Your task to perform on an android device: find photos in the google photos app Image 0: 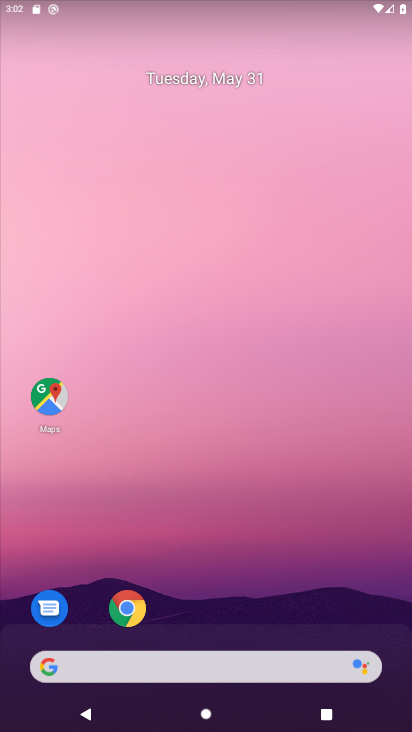
Step 0: drag from (264, 620) to (235, 173)
Your task to perform on an android device: find photos in the google photos app Image 1: 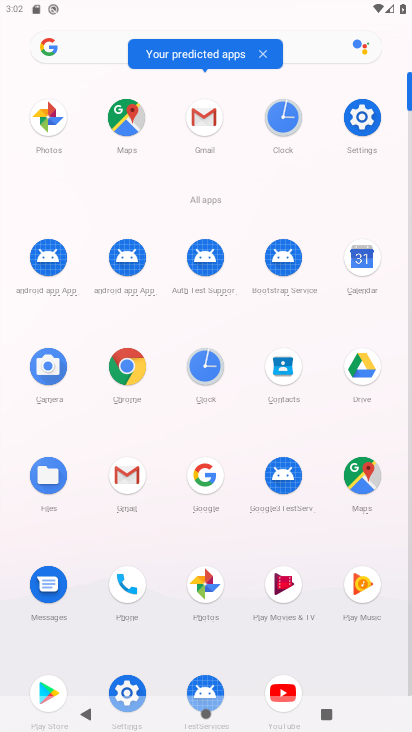
Step 1: click (204, 579)
Your task to perform on an android device: find photos in the google photos app Image 2: 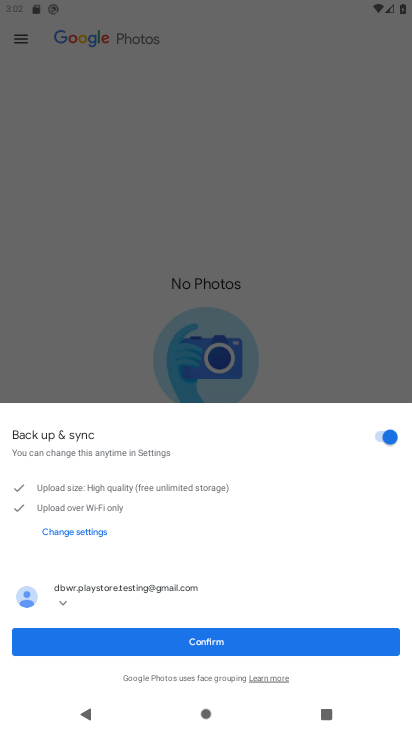
Step 2: click (235, 651)
Your task to perform on an android device: find photos in the google photos app Image 3: 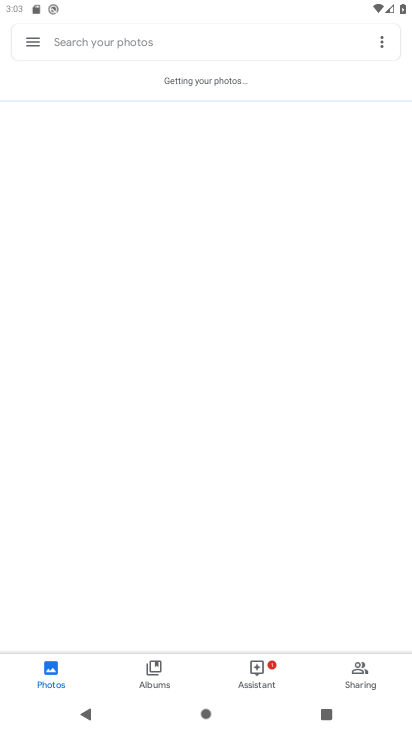
Step 3: task complete